Your task to perform on an android device: turn on data saver in the chrome app Image 0: 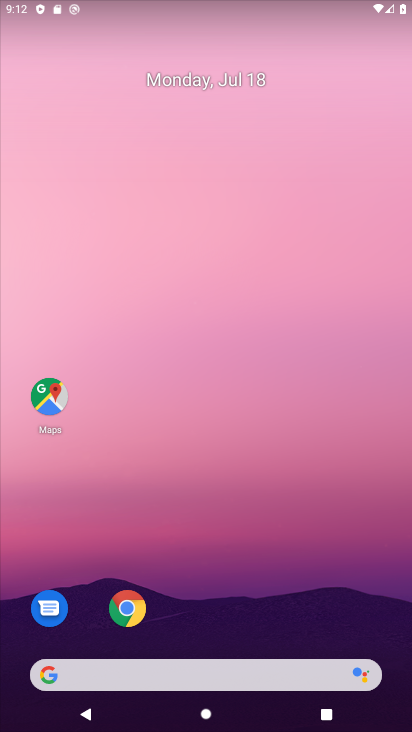
Step 0: click (125, 613)
Your task to perform on an android device: turn on data saver in the chrome app Image 1: 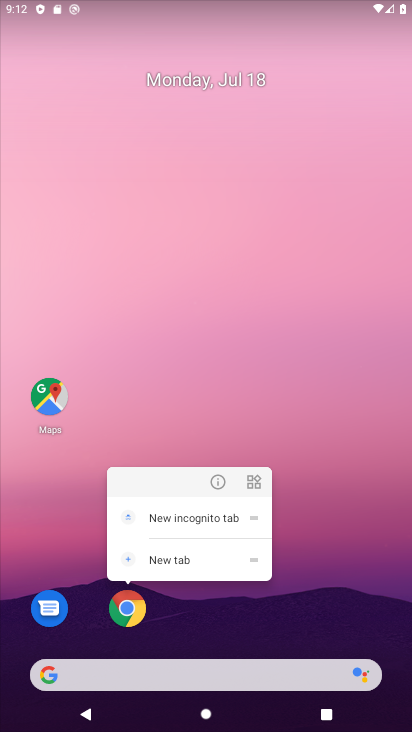
Step 1: click (124, 614)
Your task to perform on an android device: turn on data saver in the chrome app Image 2: 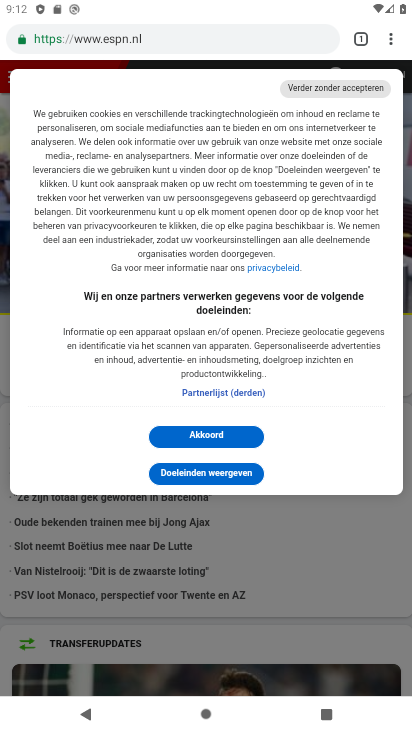
Step 2: click (391, 34)
Your task to perform on an android device: turn on data saver in the chrome app Image 3: 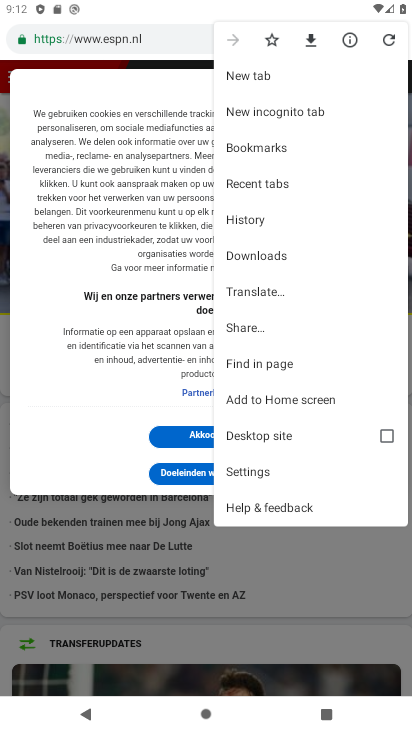
Step 3: click (253, 470)
Your task to perform on an android device: turn on data saver in the chrome app Image 4: 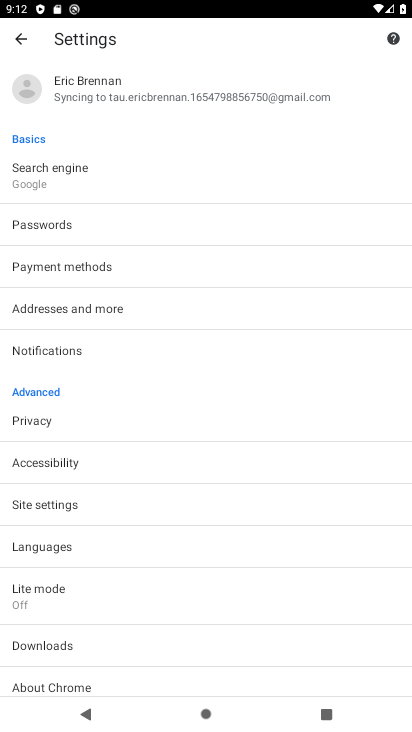
Step 4: click (68, 595)
Your task to perform on an android device: turn on data saver in the chrome app Image 5: 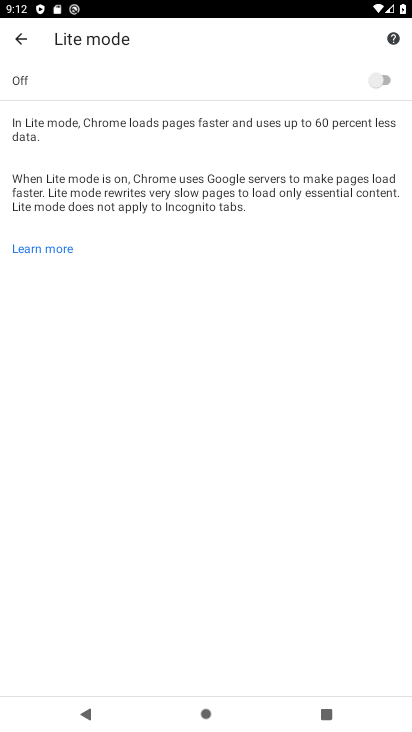
Step 5: click (387, 87)
Your task to perform on an android device: turn on data saver in the chrome app Image 6: 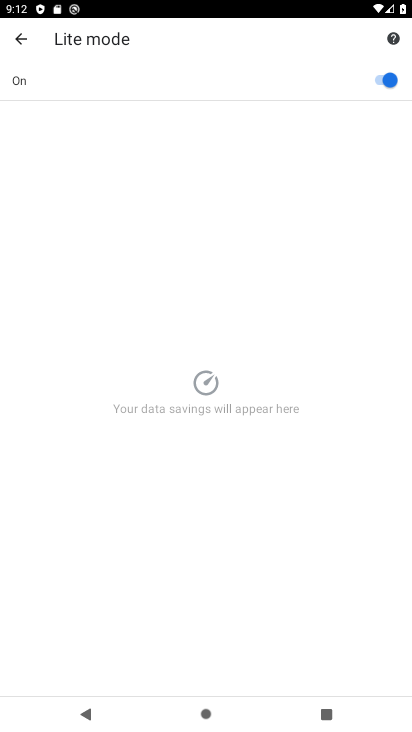
Step 6: task complete